Your task to perform on an android device: Go to eBay Image 0: 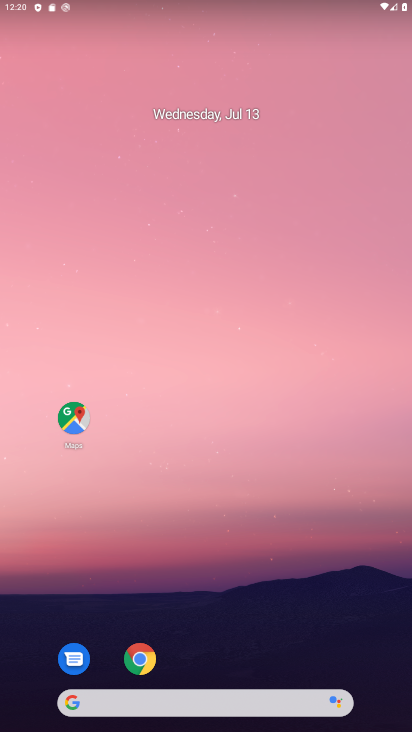
Step 0: press home button
Your task to perform on an android device: Go to eBay Image 1: 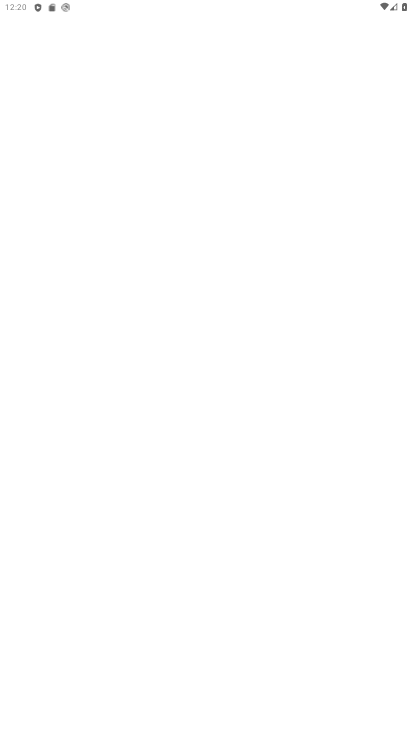
Step 1: click (232, 7)
Your task to perform on an android device: Go to eBay Image 2: 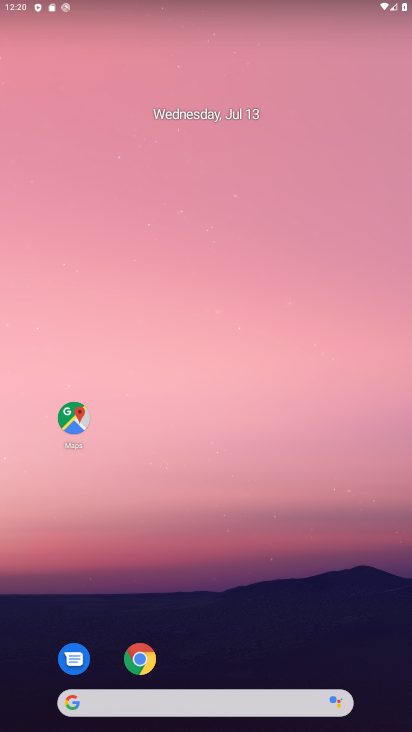
Step 2: drag from (364, 634) to (301, 9)
Your task to perform on an android device: Go to eBay Image 3: 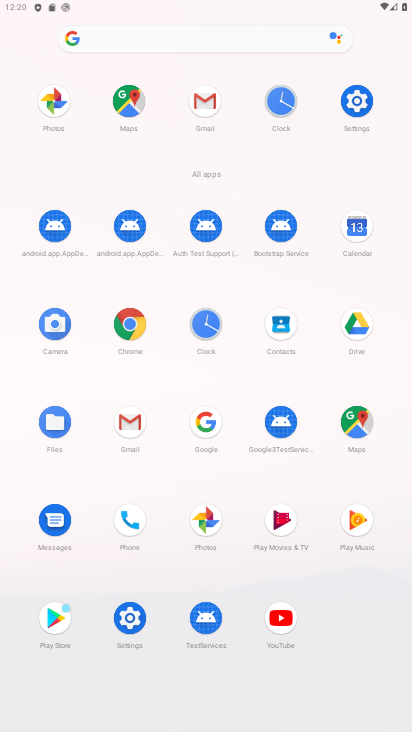
Step 3: click (113, 337)
Your task to perform on an android device: Go to eBay Image 4: 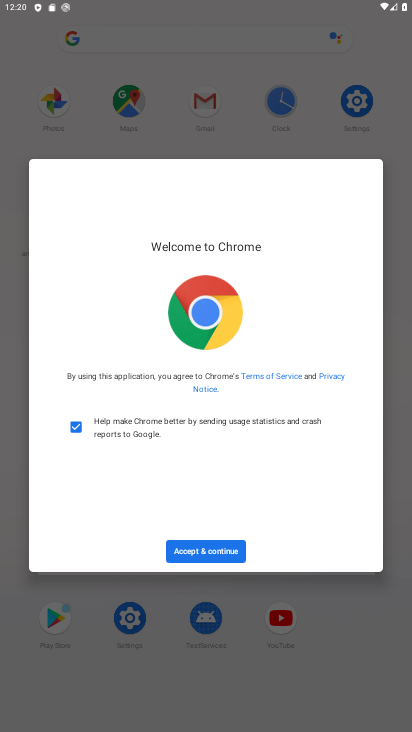
Step 4: click (197, 545)
Your task to perform on an android device: Go to eBay Image 5: 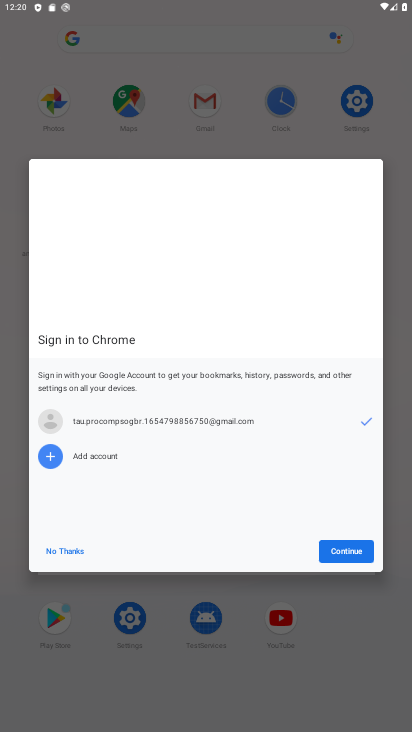
Step 5: click (350, 547)
Your task to perform on an android device: Go to eBay Image 6: 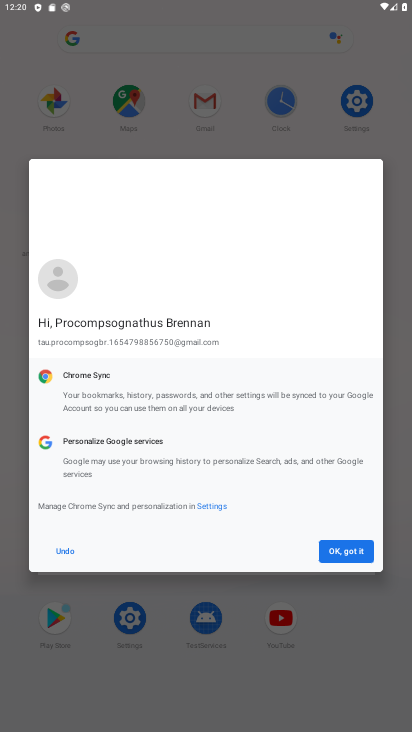
Step 6: click (350, 552)
Your task to perform on an android device: Go to eBay Image 7: 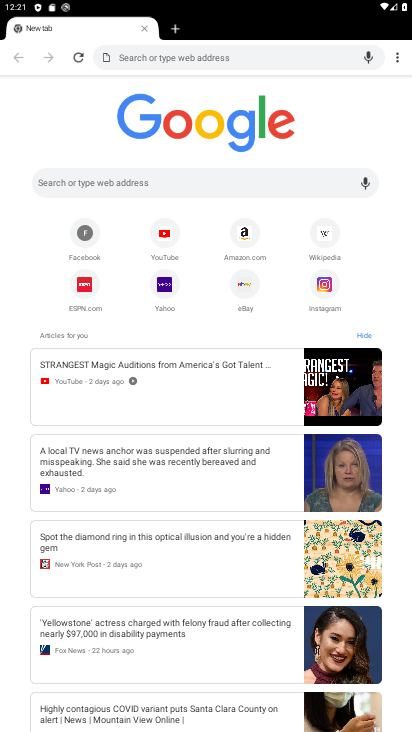
Step 7: click (253, 289)
Your task to perform on an android device: Go to eBay Image 8: 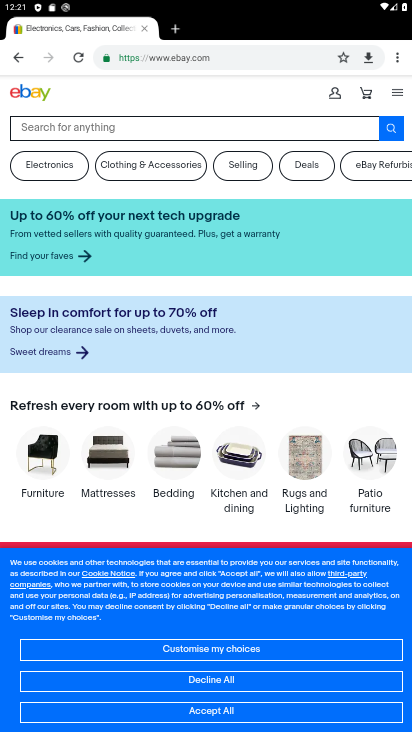
Step 8: task complete